Your task to perform on an android device: What is the recent news? Image 0: 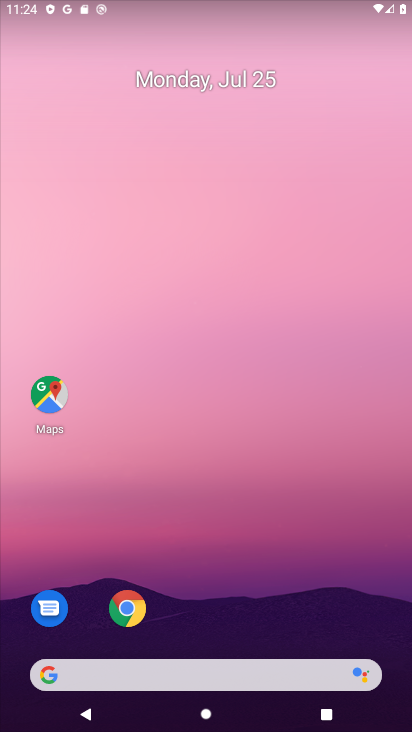
Step 0: click (116, 673)
Your task to perform on an android device: What is the recent news? Image 1: 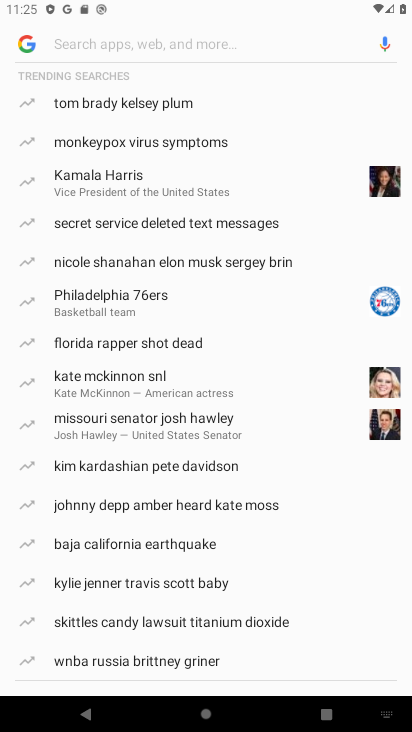
Step 1: click (19, 35)
Your task to perform on an android device: What is the recent news? Image 2: 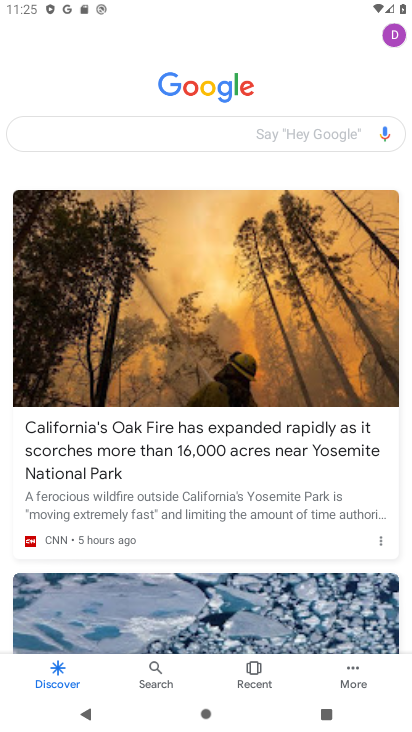
Step 2: task complete